Your task to perform on an android device: Open Maps and search for coffee Image 0: 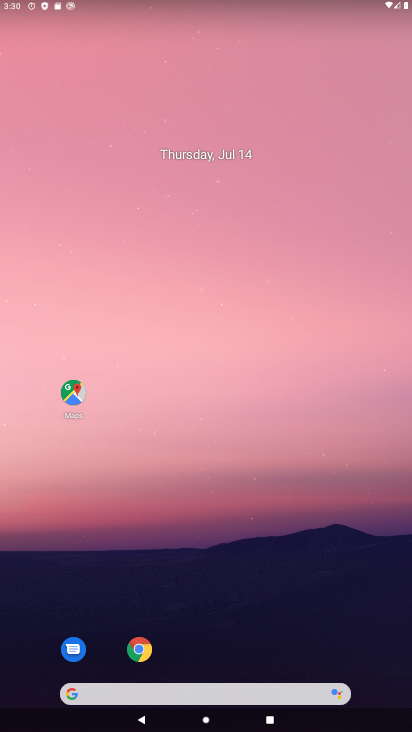
Step 0: click (280, 38)
Your task to perform on an android device: Open Maps and search for coffee Image 1: 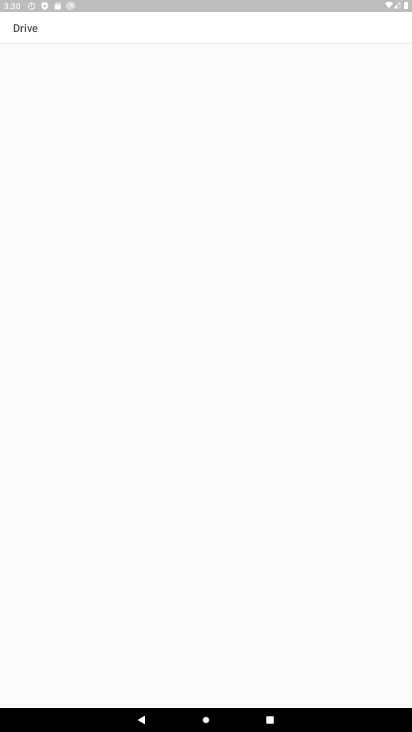
Step 1: drag from (262, 631) to (275, 54)
Your task to perform on an android device: Open Maps and search for coffee Image 2: 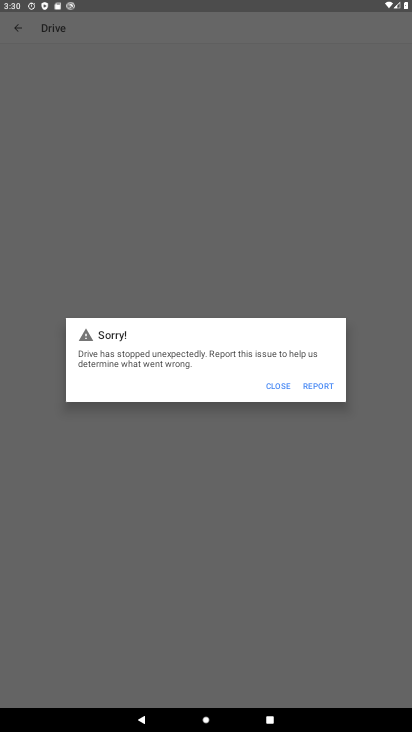
Step 2: press home button
Your task to perform on an android device: Open Maps and search for coffee Image 3: 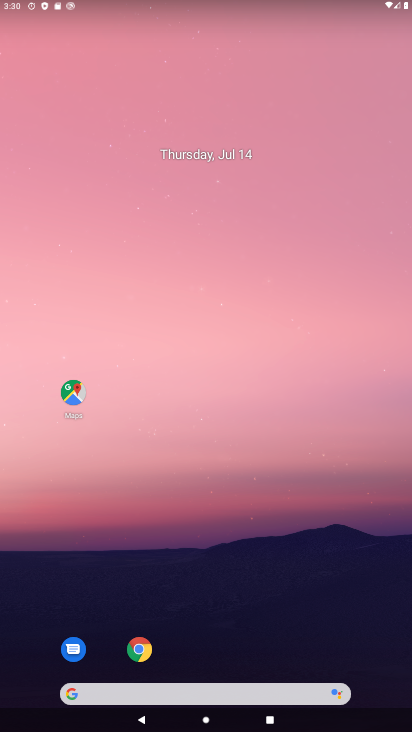
Step 3: click (64, 379)
Your task to perform on an android device: Open Maps and search for coffee Image 4: 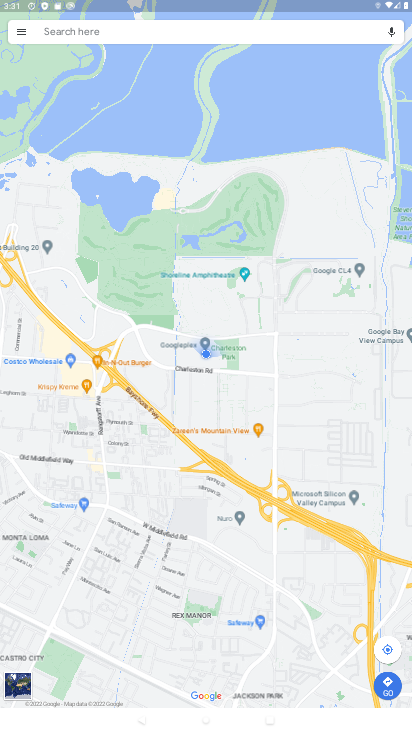
Step 4: click (133, 25)
Your task to perform on an android device: Open Maps and search for coffee Image 5: 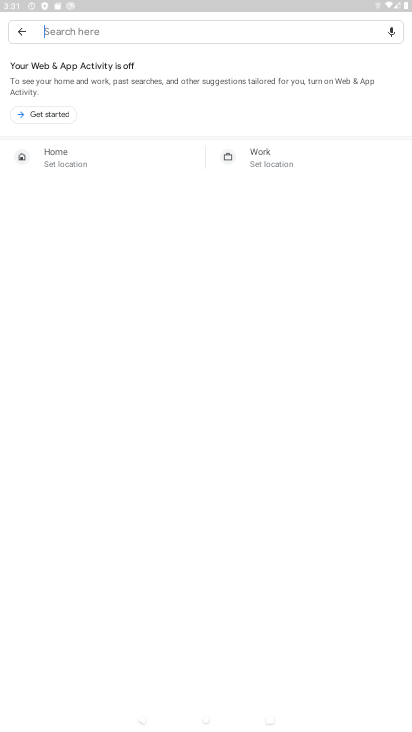
Step 5: type "coffee"
Your task to perform on an android device: Open Maps and search for coffee Image 6: 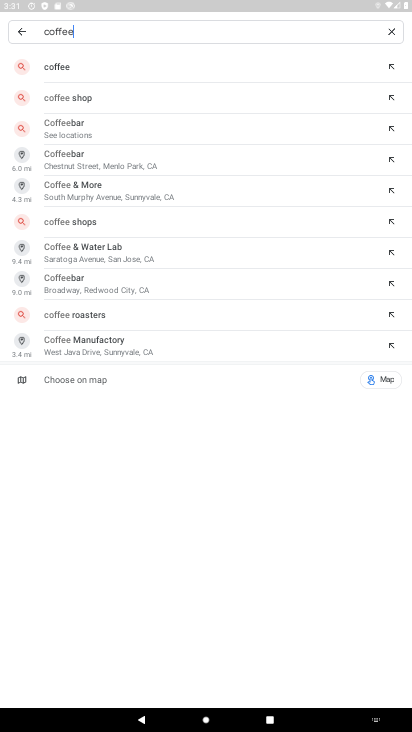
Step 6: click (96, 69)
Your task to perform on an android device: Open Maps and search for coffee Image 7: 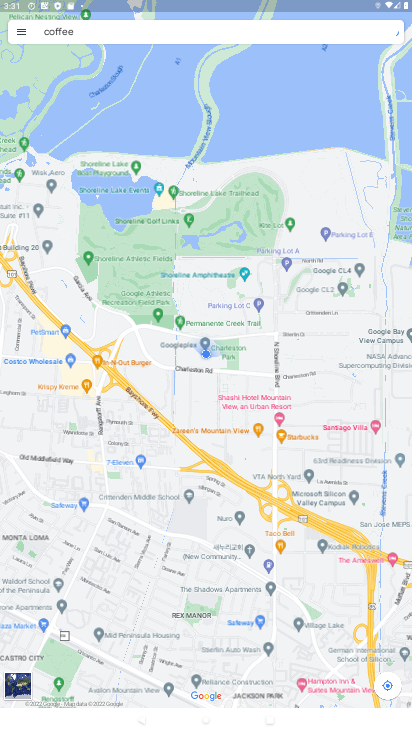
Step 7: task complete